Your task to perform on an android device: toggle javascript in the chrome app Image 0: 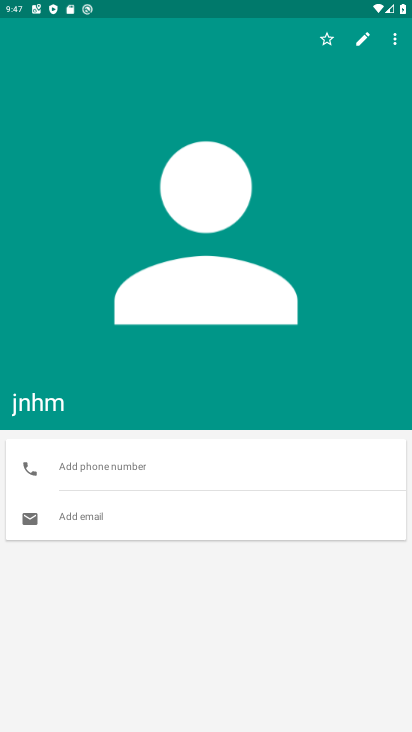
Step 0: drag from (219, 586) to (411, 204)
Your task to perform on an android device: toggle javascript in the chrome app Image 1: 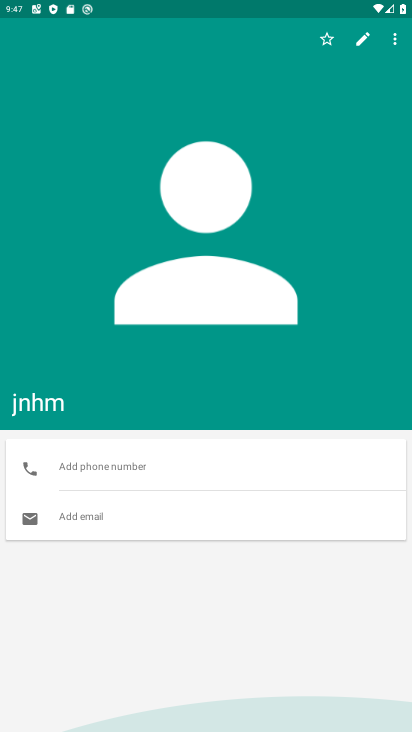
Step 1: press home button
Your task to perform on an android device: toggle javascript in the chrome app Image 2: 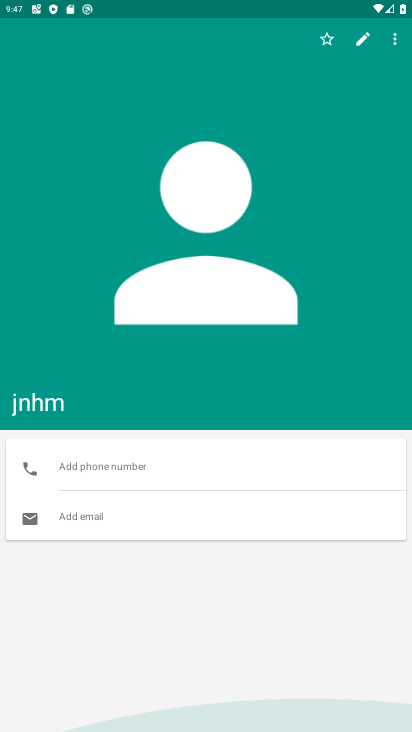
Step 2: click (402, 477)
Your task to perform on an android device: toggle javascript in the chrome app Image 3: 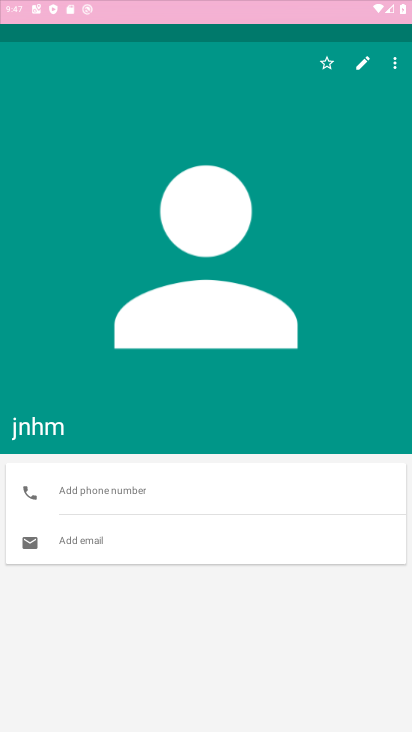
Step 3: drag from (193, 634) to (274, 239)
Your task to perform on an android device: toggle javascript in the chrome app Image 4: 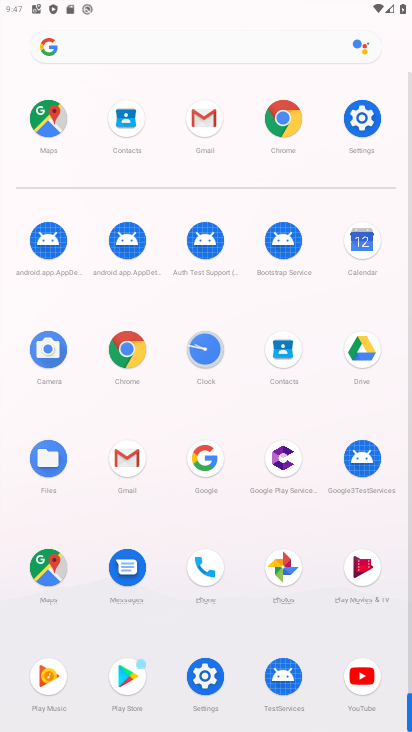
Step 4: click (125, 352)
Your task to perform on an android device: toggle javascript in the chrome app Image 5: 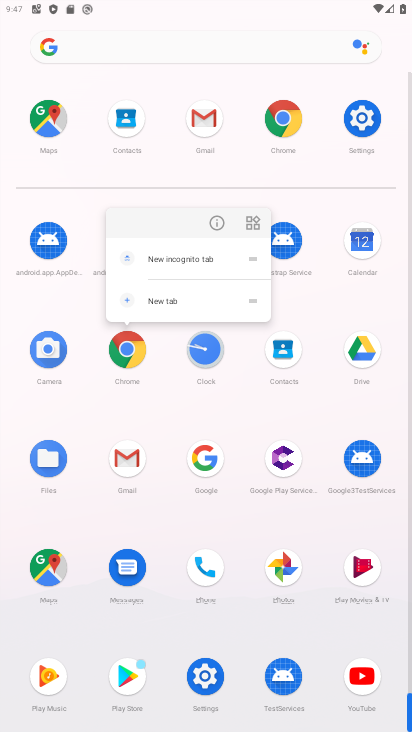
Step 5: click (213, 217)
Your task to perform on an android device: toggle javascript in the chrome app Image 6: 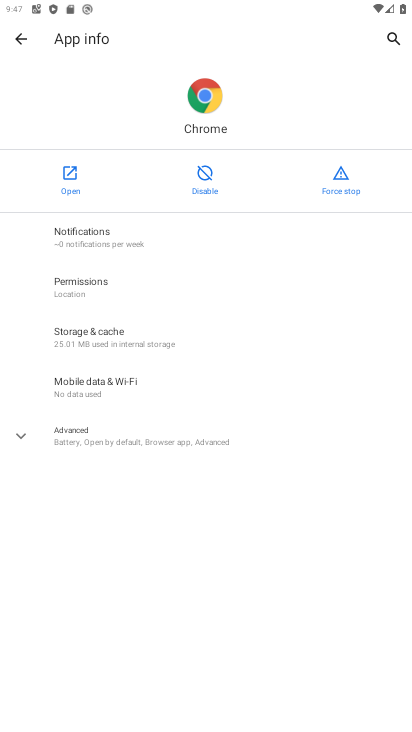
Step 6: click (69, 182)
Your task to perform on an android device: toggle javascript in the chrome app Image 7: 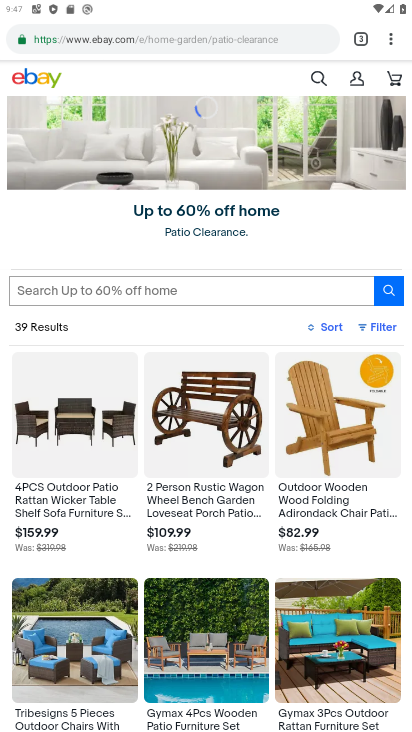
Step 7: click (384, 35)
Your task to perform on an android device: toggle javascript in the chrome app Image 8: 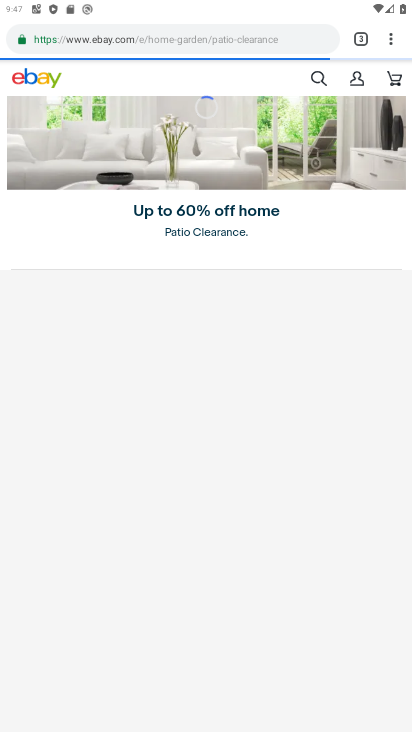
Step 8: drag from (390, 35) to (266, 511)
Your task to perform on an android device: toggle javascript in the chrome app Image 9: 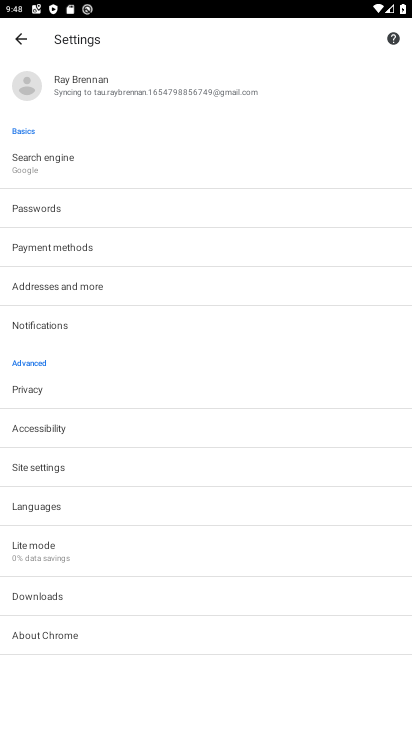
Step 9: click (54, 463)
Your task to perform on an android device: toggle javascript in the chrome app Image 10: 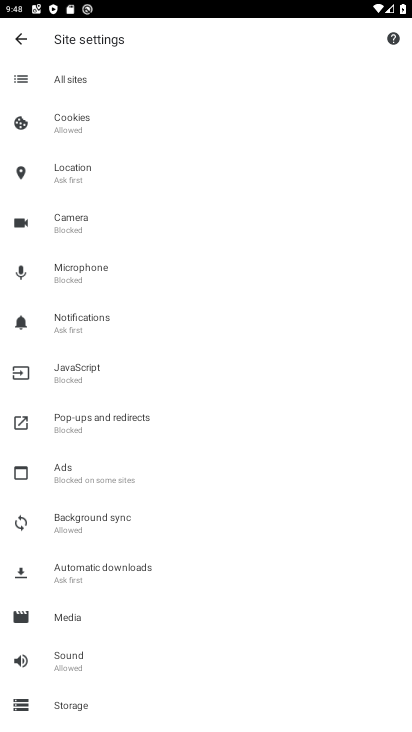
Step 10: click (108, 374)
Your task to perform on an android device: toggle javascript in the chrome app Image 11: 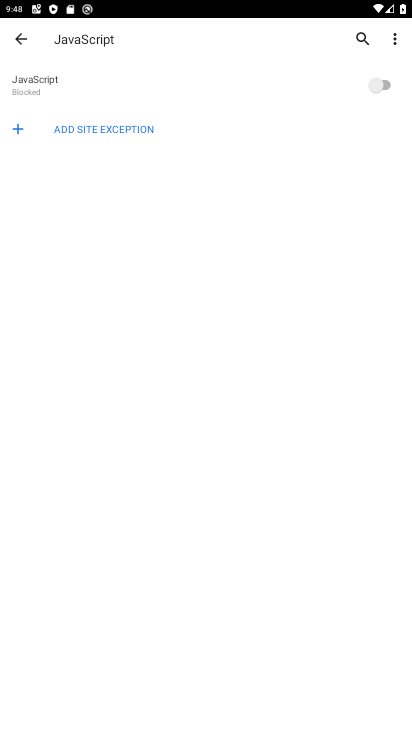
Step 11: drag from (163, 516) to (229, 232)
Your task to perform on an android device: toggle javascript in the chrome app Image 12: 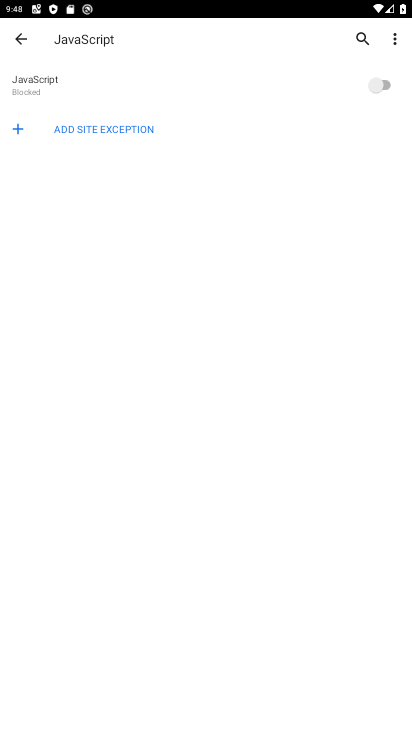
Step 12: drag from (203, 423) to (243, 172)
Your task to perform on an android device: toggle javascript in the chrome app Image 13: 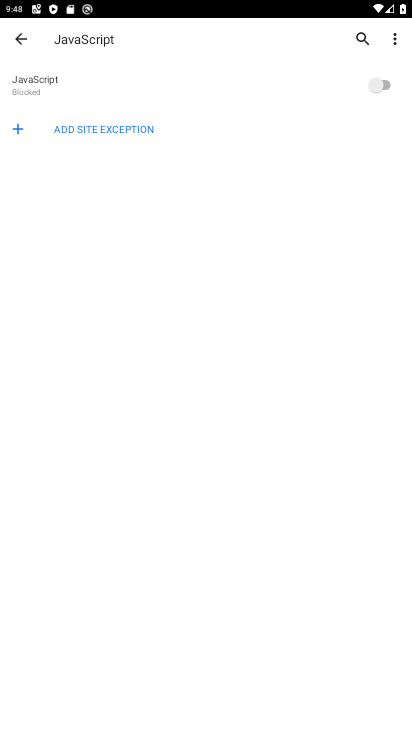
Step 13: drag from (262, 526) to (275, 169)
Your task to perform on an android device: toggle javascript in the chrome app Image 14: 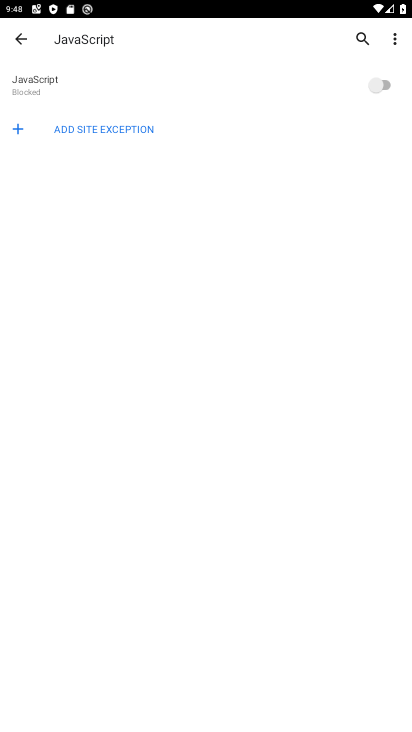
Step 14: click (259, 346)
Your task to perform on an android device: toggle javascript in the chrome app Image 15: 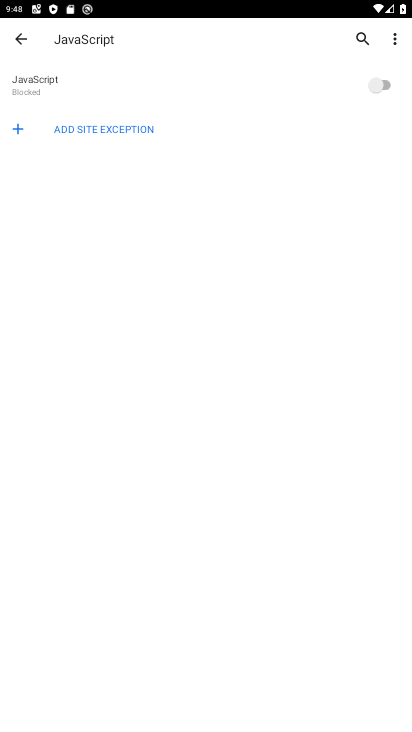
Step 15: task complete